Your task to perform on an android device: Go to eBay Image 0: 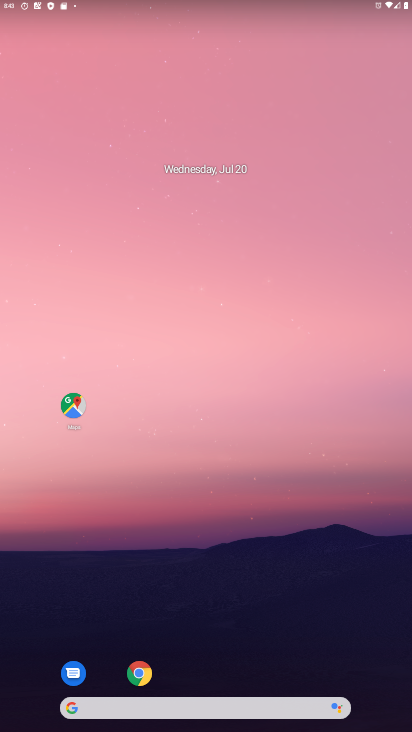
Step 0: drag from (207, 677) to (199, 234)
Your task to perform on an android device: Go to eBay Image 1: 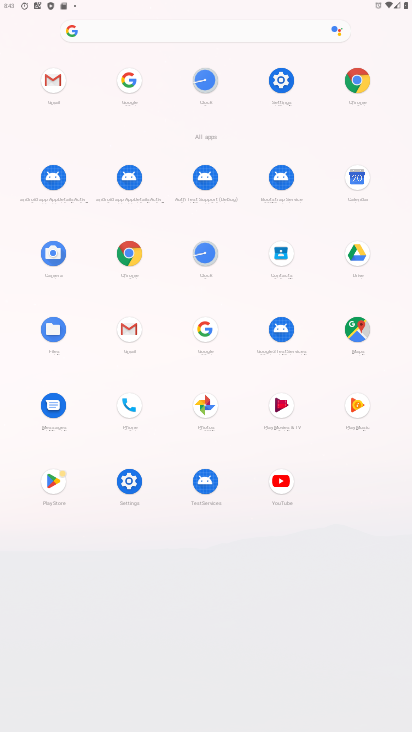
Step 1: click (131, 81)
Your task to perform on an android device: Go to eBay Image 2: 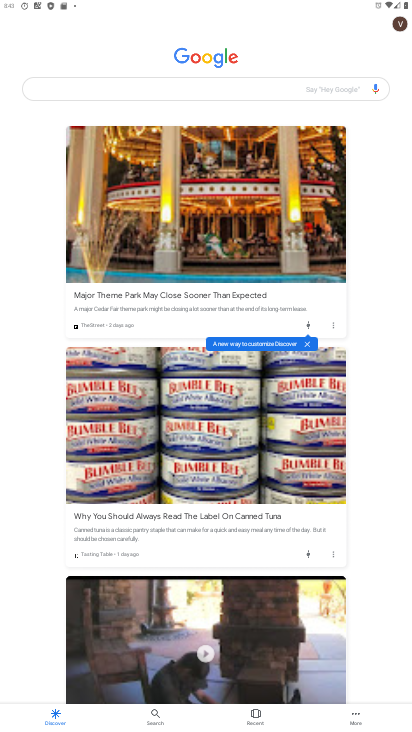
Step 2: click (232, 84)
Your task to perform on an android device: Go to eBay Image 3: 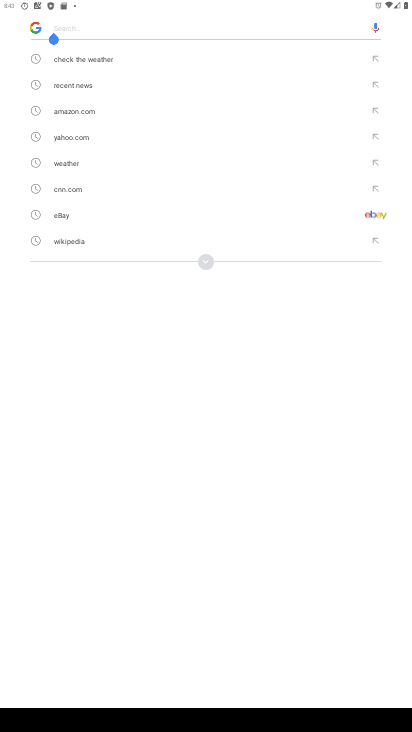
Step 3: click (76, 215)
Your task to perform on an android device: Go to eBay Image 4: 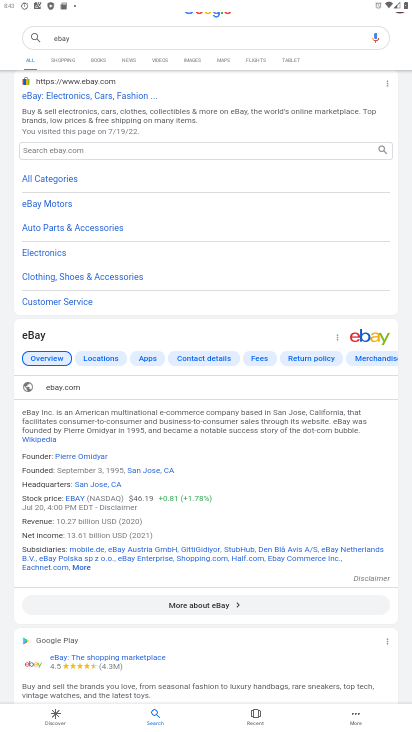
Step 4: task complete